Your task to perform on an android device: turn on priority inbox in the gmail app Image 0: 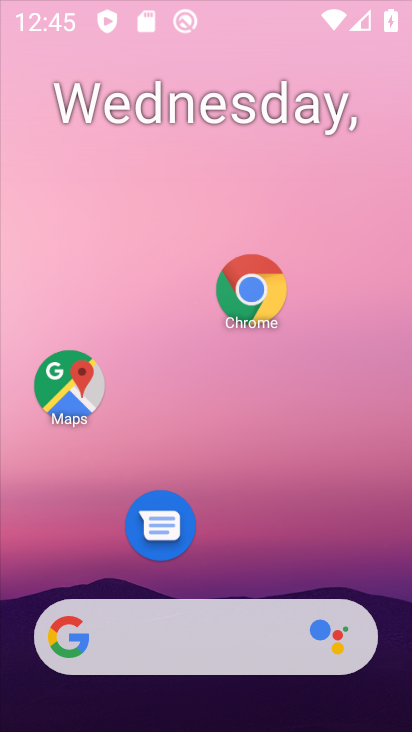
Step 0: click (32, 117)
Your task to perform on an android device: turn on priority inbox in the gmail app Image 1: 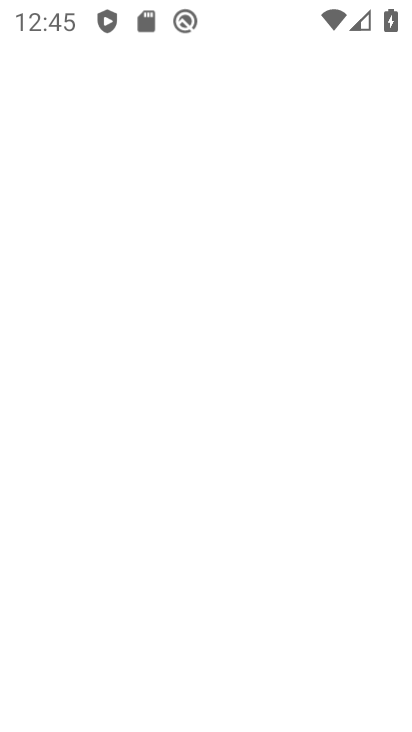
Step 1: press home button
Your task to perform on an android device: turn on priority inbox in the gmail app Image 2: 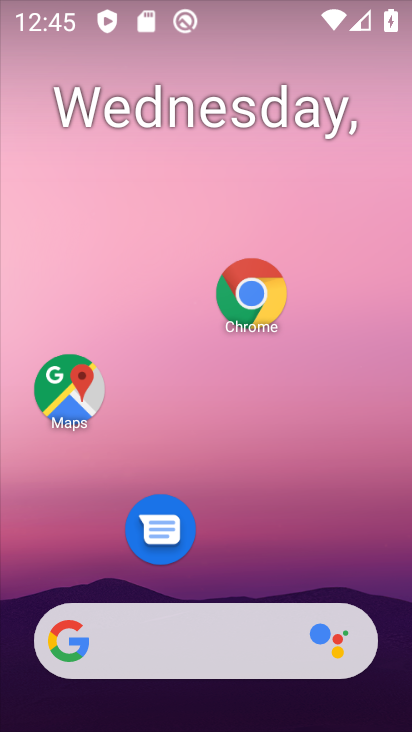
Step 2: drag from (208, 526) to (257, 150)
Your task to perform on an android device: turn on priority inbox in the gmail app Image 3: 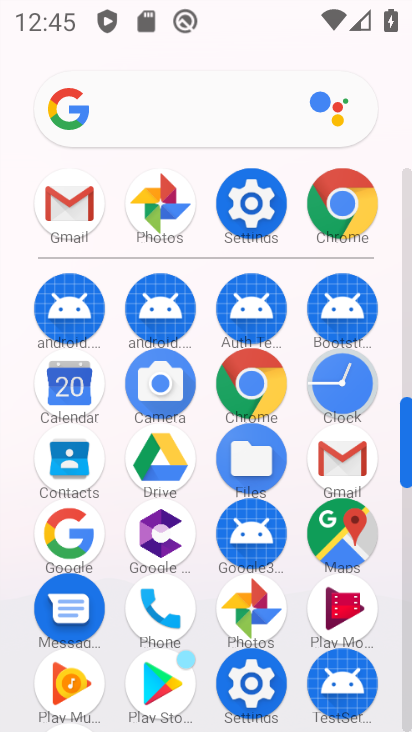
Step 3: click (359, 463)
Your task to perform on an android device: turn on priority inbox in the gmail app Image 4: 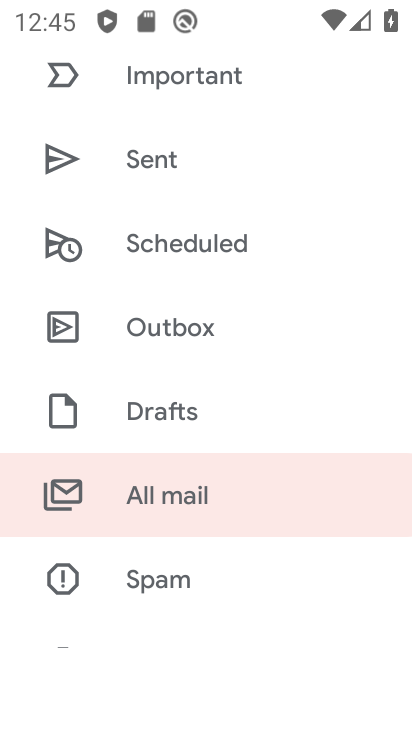
Step 4: drag from (233, 529) to (303, 258)
Your task to perform on an android device: turn on priority inbox in the gmail app Image 5: 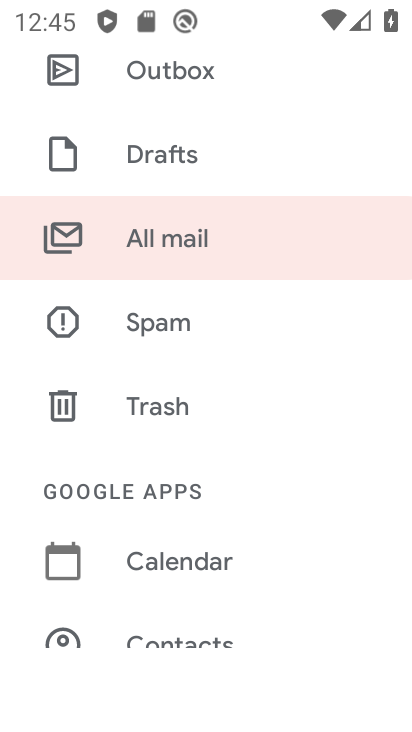
Step 5: drag from (220, 511) to (294, 222)
Your task to perform on an android device: turn on priority inbox in the gmail app Image 6: 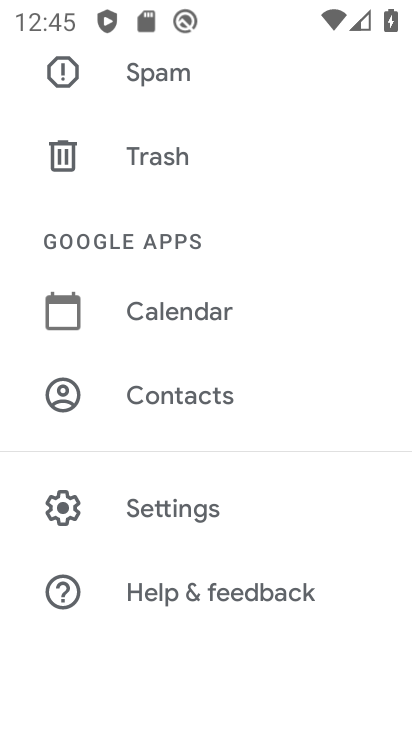
Step 6: click (225, 510)
Your task to perform on an android device: turn on priority inbox in the gmail app Image 7: 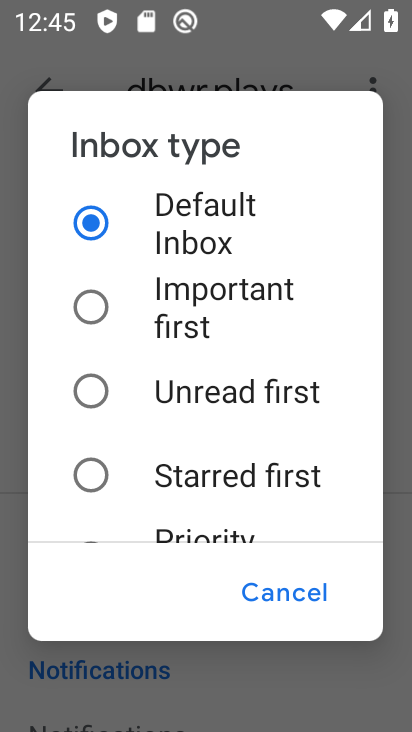
Step 7: drag from (251, 407) to (350, 126)
Your task to perform on an android device: turn on priority inbox in the gmail app Image 8: 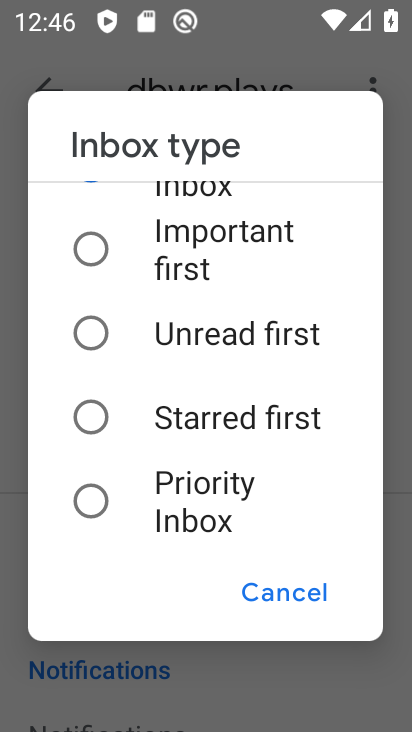
Step 8: click (83, 519)
Your task to perform on an android device: turn on priority inbox in the gmail app Image 9: 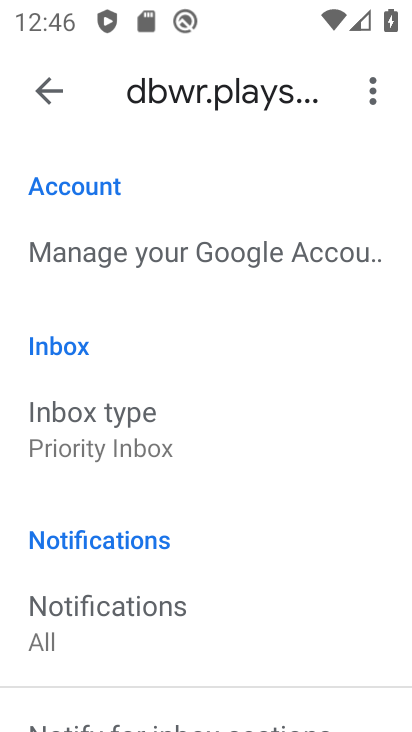
Step 9: task complete